Your task to perform on an android device: Go to Android settings Image 0: 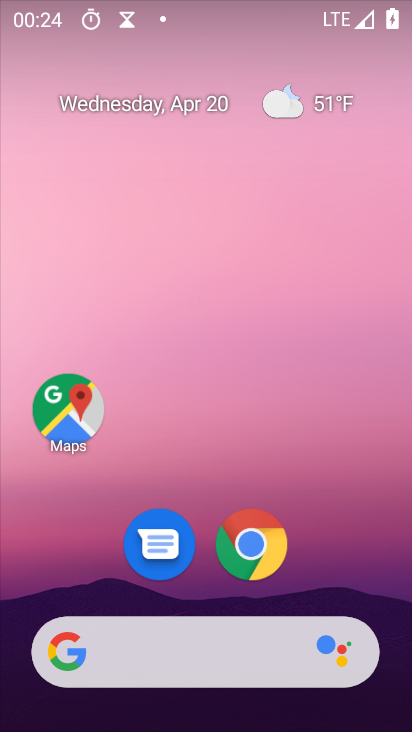
Step 0: drag from (364, 581) to (297, 14)
Your task to perform on an android device: Go to Android settings Image 1: 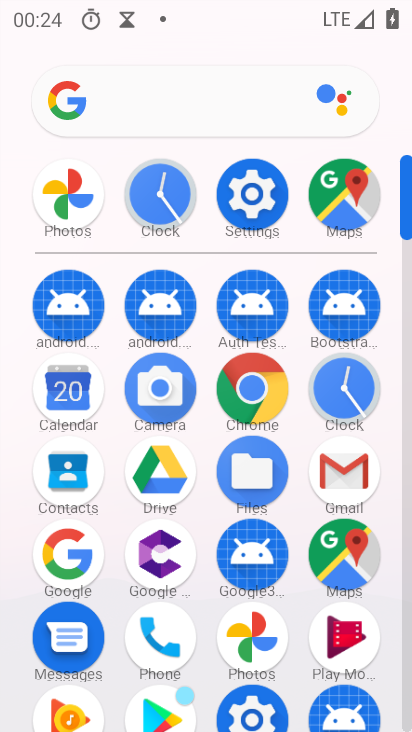
Step 1: click (253, 201)
Your task to perform on an android device: Go to Android settings Image 2: 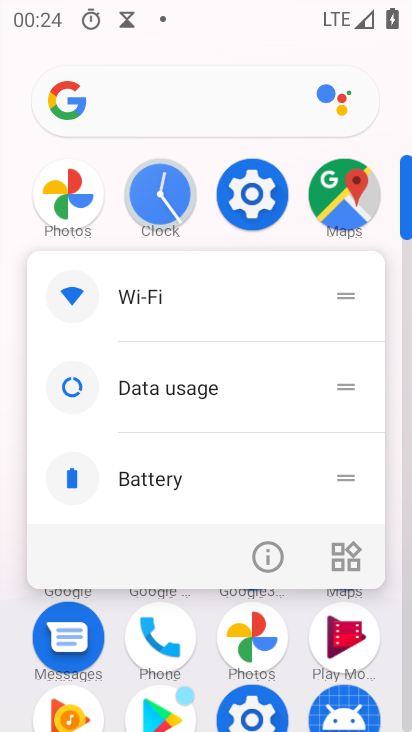
Step 2: click (253, 200)
Your task to perform on an android device: Go to Android settings Image 3: 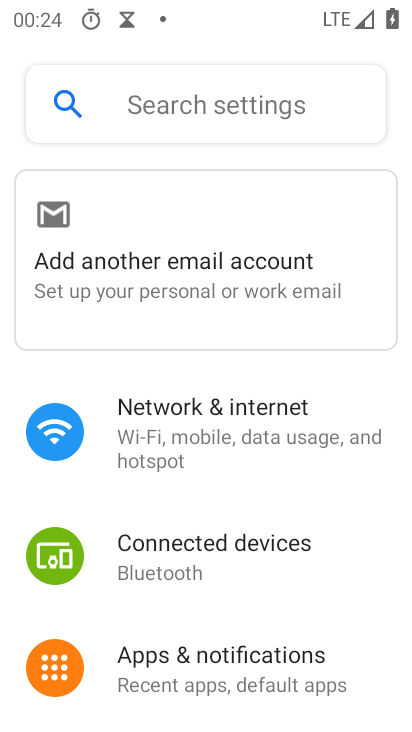
Step 3: drag from (130, 594) to (132, 445)
Your task to perform on an android device: Go to Android settings Image 4: 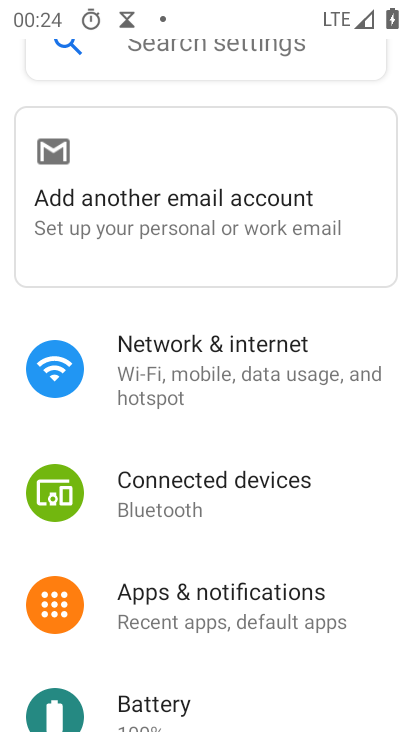
Step 4: drag from (155, 620) to (161, 487)
Your task to perform on an android device: Go to Android settings Image 5: 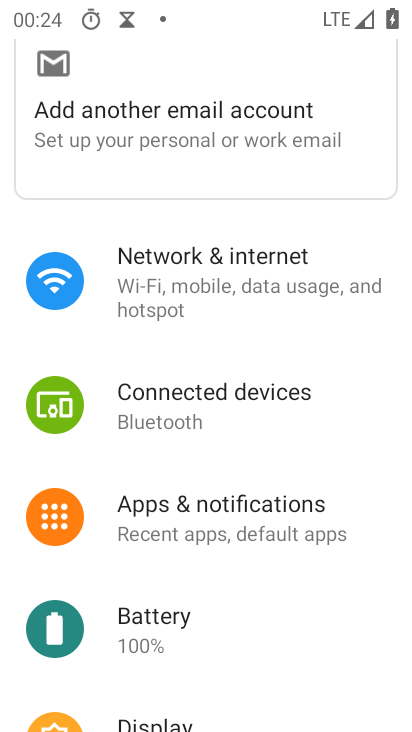
Step 5: drag from (117, 645) to (146, 562)
Your task to perform on an android device: Go to Android settings Image 6: 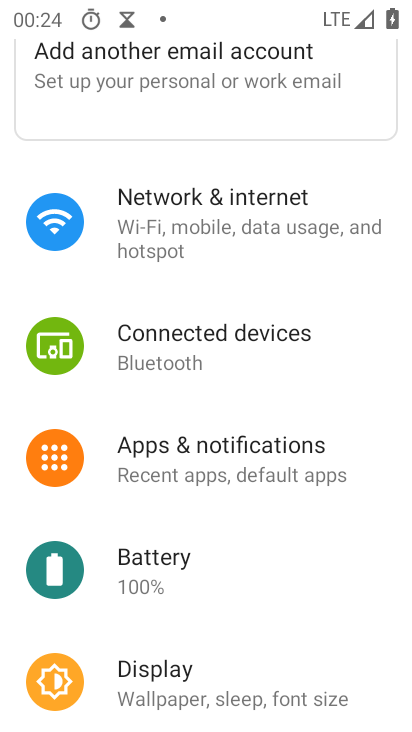
Step 6: drag from (137, 683) to (197, 480)
Your task to perform on an android device: Go to Android settings Image 7: 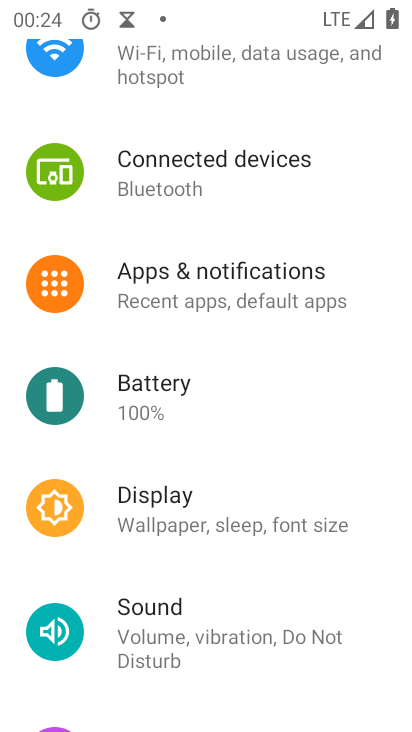
Step 7: drag from (215, 611) to (227, 526)
Your task to perform on an android device: Go to Android settings Image 8: 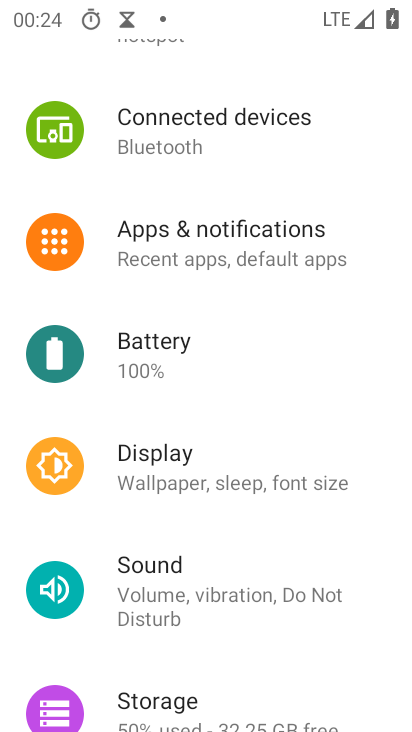
Step 8: drag from (175, 676) to (226, 539)
Your task to perform on an android device: Go to Android settings Image 9: 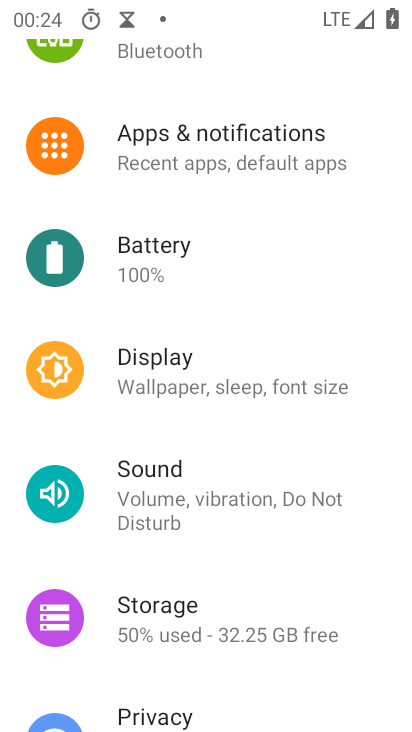
Step 9: drag from (237, 632) to (275, 538)
Your task to perform on an android device: Go to Android settings Image 10: 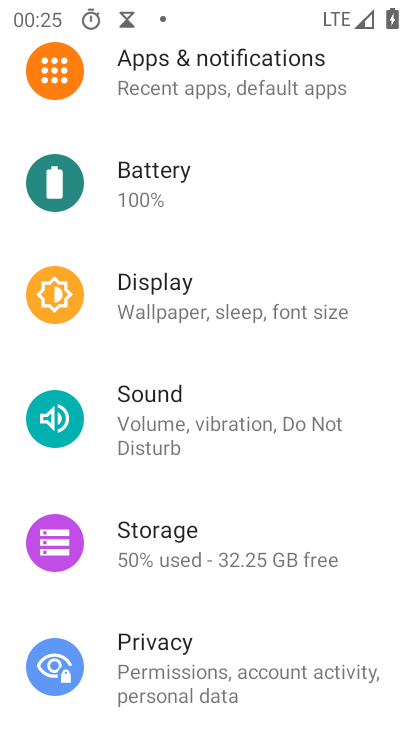
Step 10: drag from (276, 661) to (289, 562)
Your task to perform on an android device: Go to Android settings Image 11: 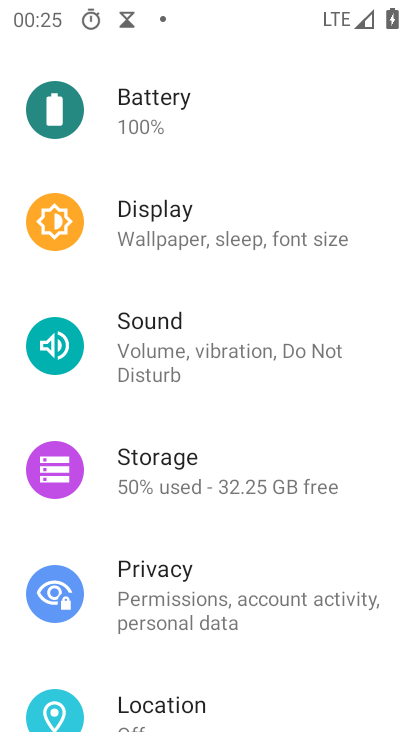
Step 11: drag from (305, 643) to (323, 562)
Your task to perform on an android device: Go to Android settings Image 12: 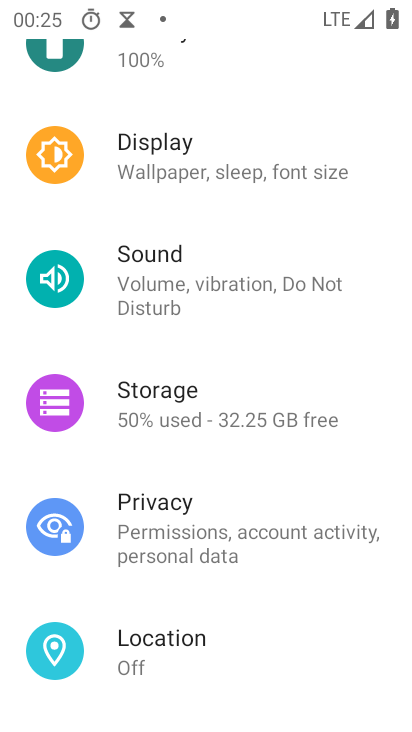
Step 12: drag from (304, 629) to (318, 533)
Your task to perform on an android device: Go to Android settings Image 13: 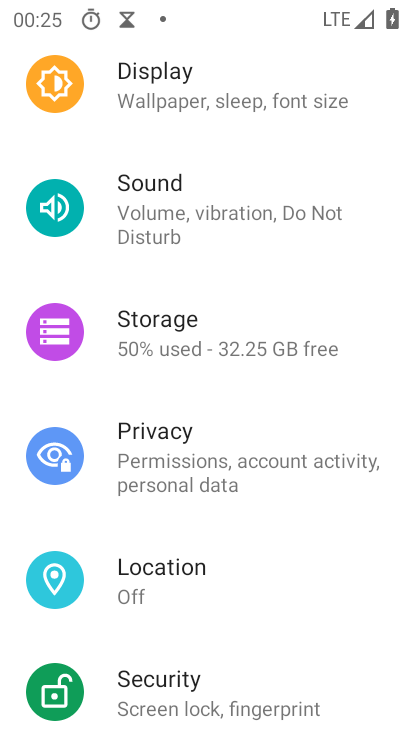
Step 13: drag from (295, 654) to (314, 440)
Your task to perform on an android device: Go to Android settings Image 14: 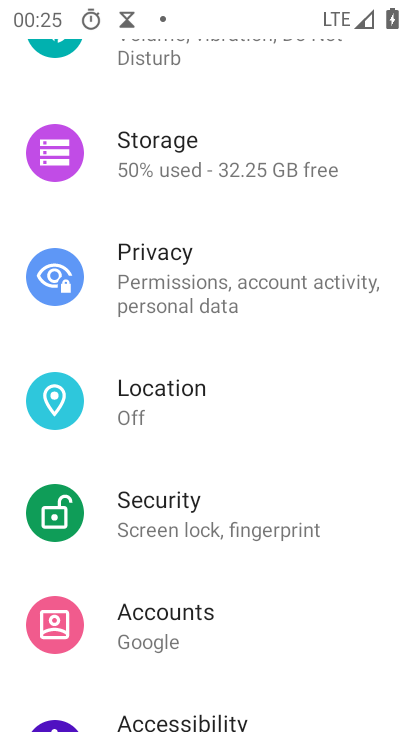
Step 14: drag from (267, 606) to (292, 529)
Your task to perform on an android device: Go to Android settings Image 15: 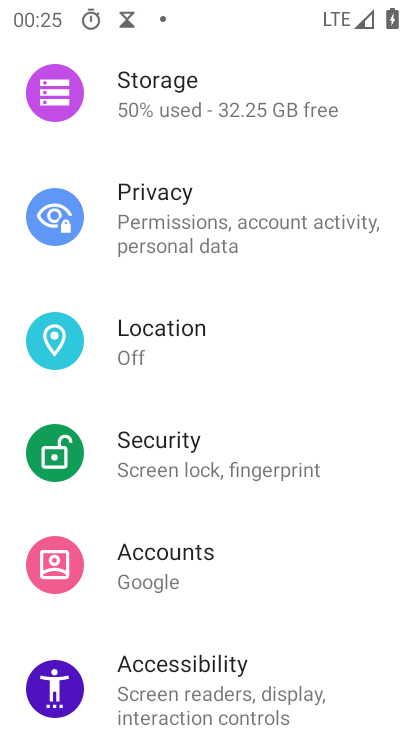
Step 15: drag from (236, 606) to (266, 492)
Your task to perform on an android device: Go to Android settings Image 16: 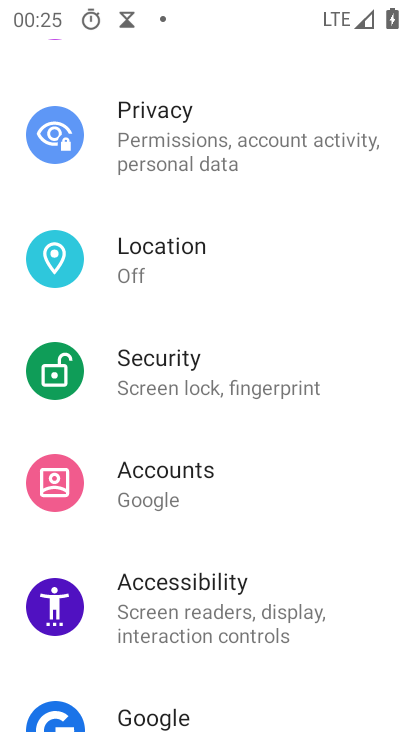
Step 16: drag from (254, 573) to (274, 474)
Your task to perform on an android device: Go to Android settings Image 17: 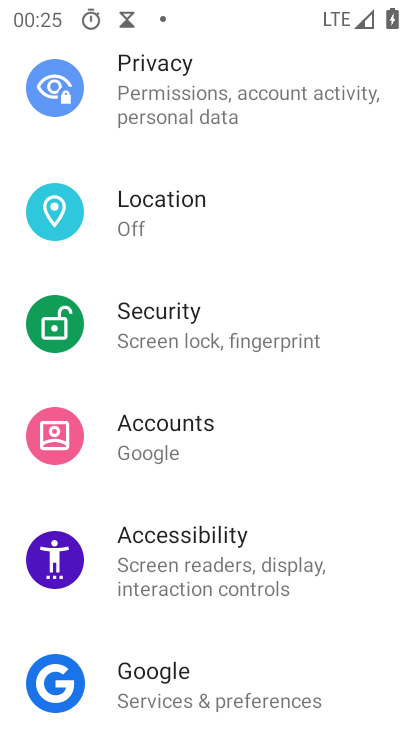
Step 17: drag from (216, 669) to (245, 528)
Your task to perform on an android device: Go to Android settings Image 18: 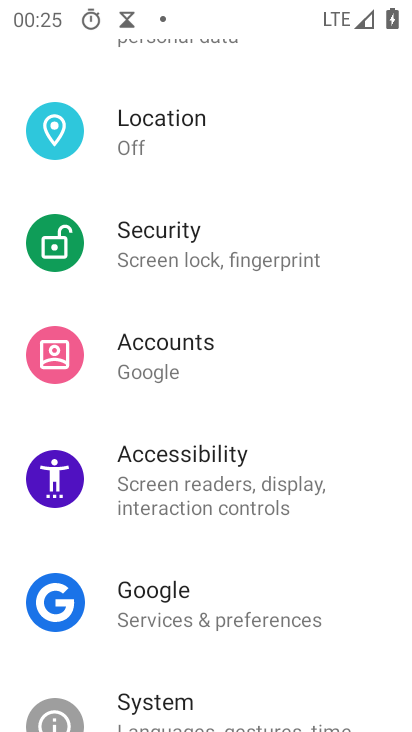
Step 18: drag from (270, 679) to (276, 494)
Your task to perform on an android device: Go to Android settings Image 19: 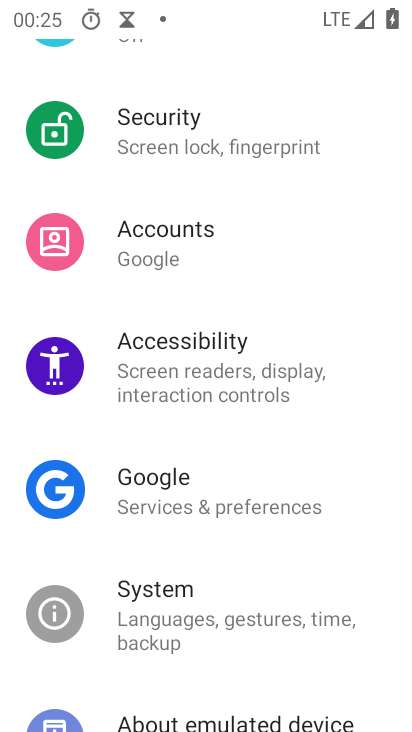
Step 19: click (246, 626)
Your task to perform on an android device: Go to Android settings Image 20: 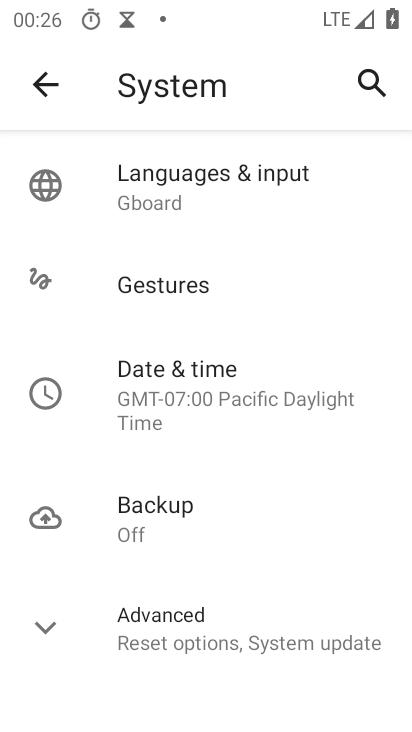
Step 20: task complete